Your task to perform on an android device: check the backup settings in the google photos Image 0: 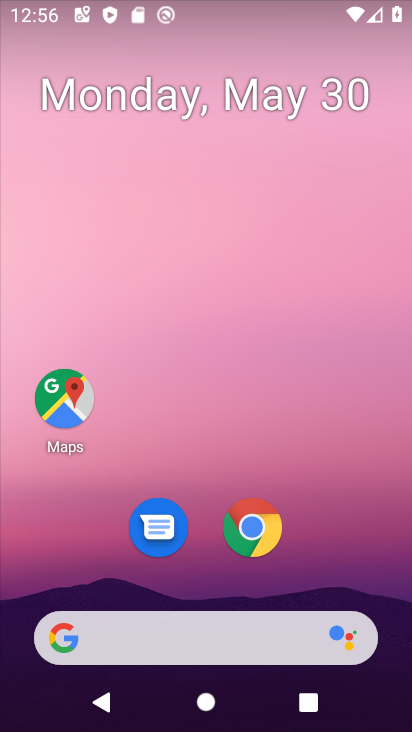
Step 0: drag from (191, 592) to (251, 183)
Your task to perform on an android device: check the backup settings in the google photos Image 1: 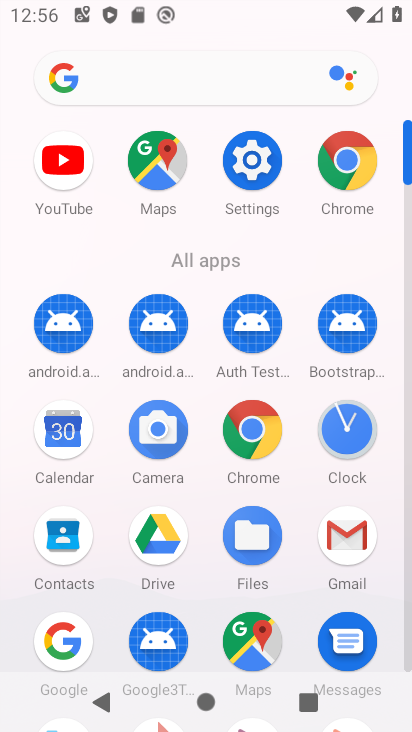
Step 1: drag from (201, 587) to (209, 224)
Your task to perform on an android device: check the backup settings in the google photos Image 2: 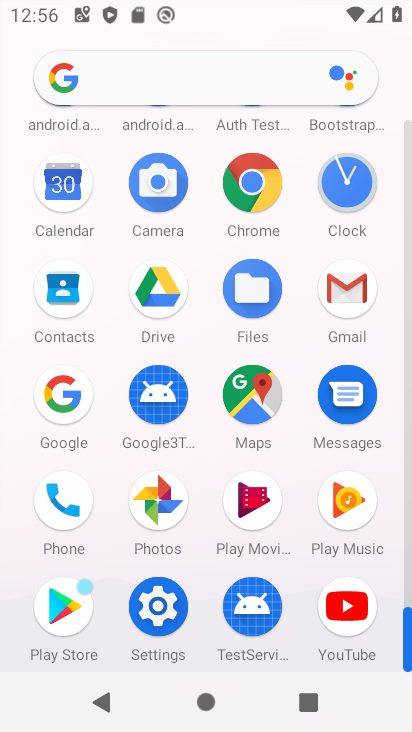
Step 2: click (164, 516)
Your task to perform on an android device: check the backup settings in the google photos Image 3: 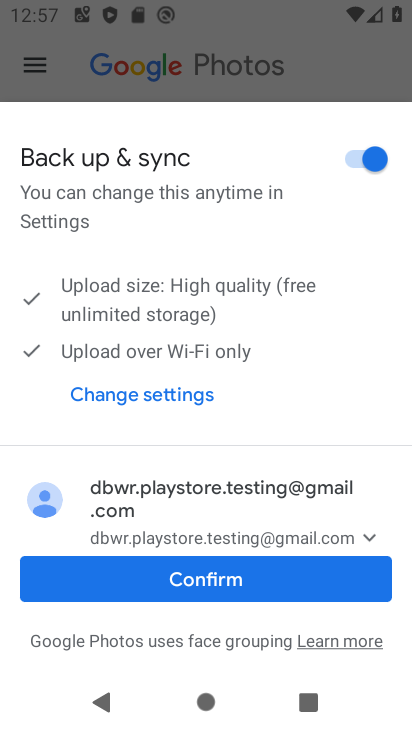
Step 3: click (237, 573)
Your task to perform on an android device: check the backup settings in the google photos Image 4: 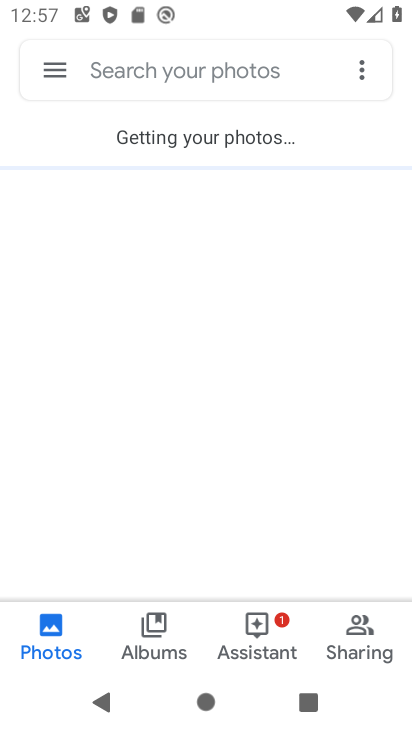
Step 4: click (74, 63)
Your task to perform on an android device: check the backup settings in the google photos Image 5: 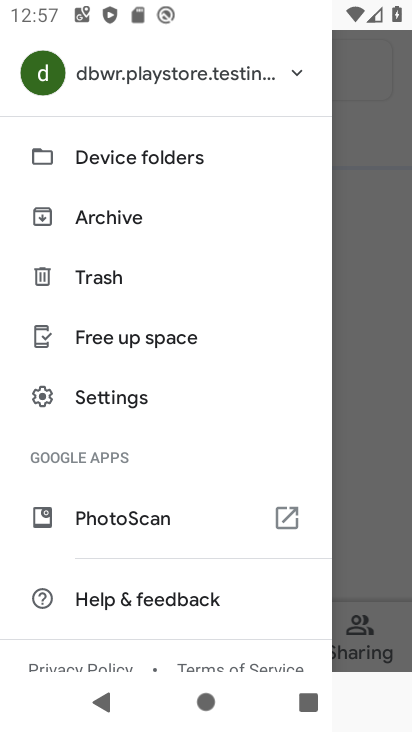
Step 5: click (96, 399)
Your task to perform on an android device: check the backup settings in the google photos Image 6: 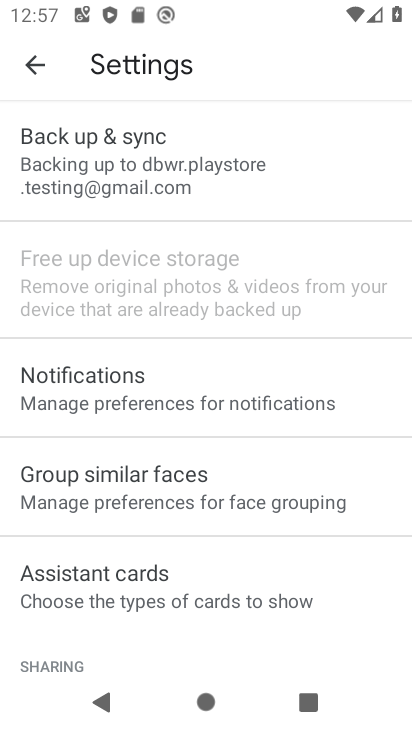
Step 6: click (207, 142)
Your task to perform on an android device: check the backup settings in the google photos Image 7: 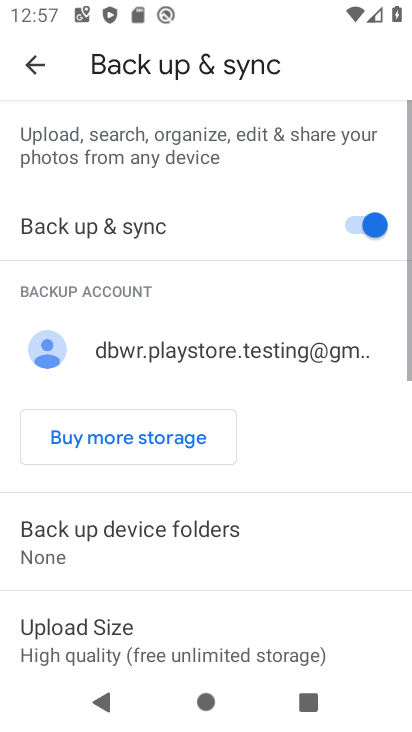
Step 7: task complete